Your task to perform on an android device: allow cookies in the chrome app Image 0: 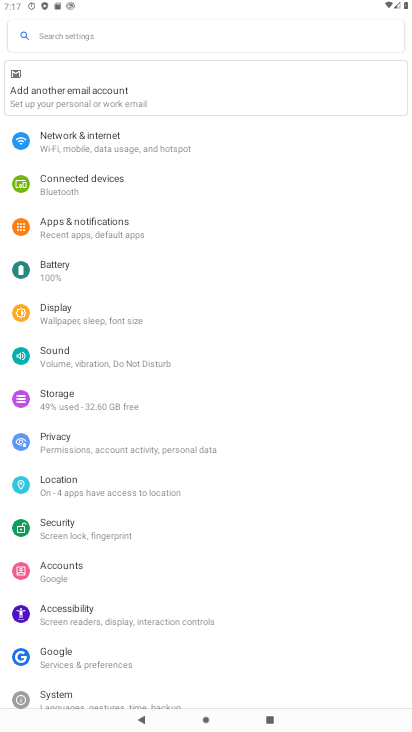
Step 0: press home button
Your task to perform on an android device: allow cookies in the chrome app Image 1: 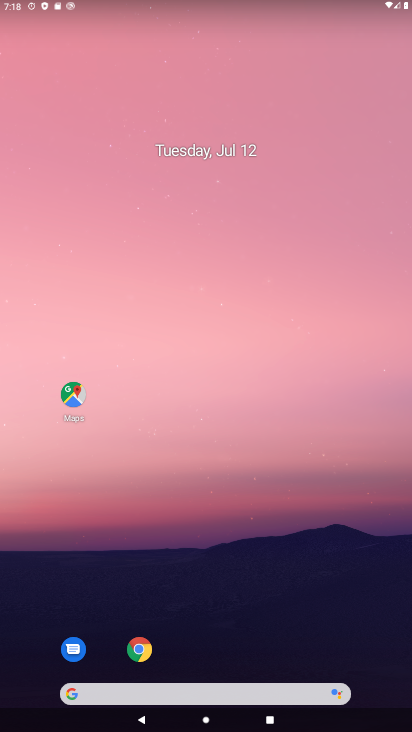
Step 1: click (142, 649)
Your task to perform on an android device: allow cookies in the chrome app Image 2: 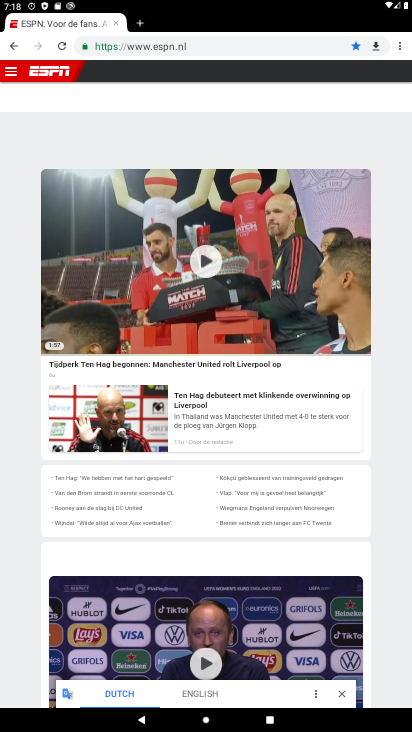
Step 2: click (401, 46)
Your task to perform on an android device: allow cookies in the chrome app Image 3: 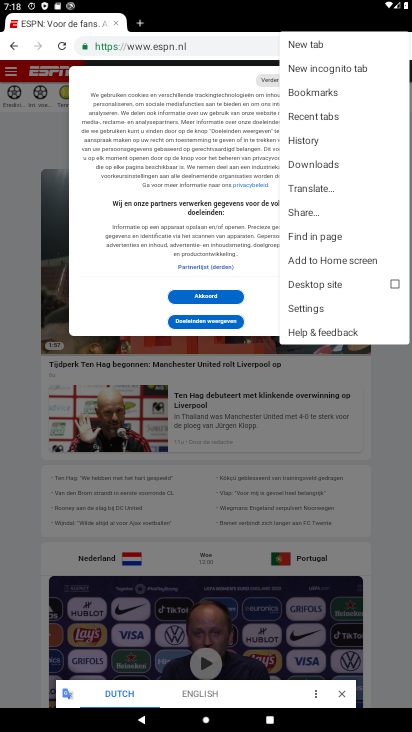
Step 3: click (312, 311)
Your task to perform on an android device: allow cookies in the chrome app Image 4: 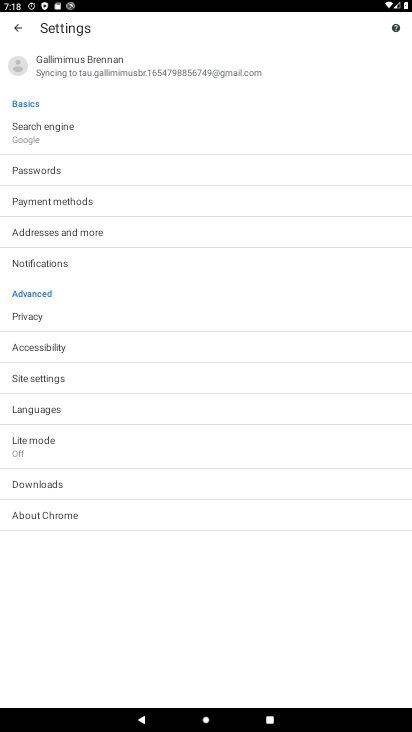
Step 4: click (39, 377)
Your task to perform on an android device: allow cookies in the chrome app Image 5: 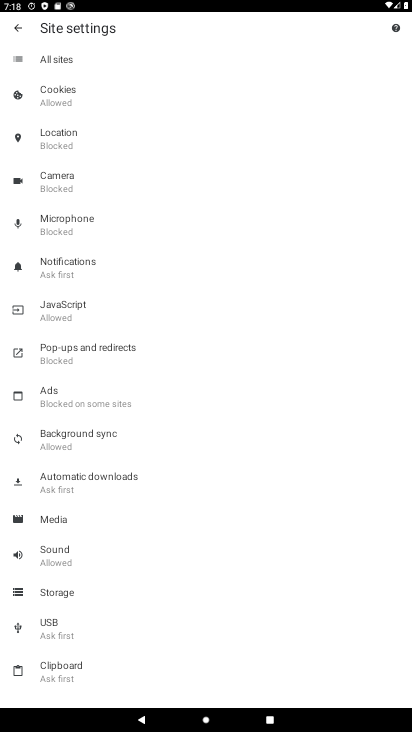
Step 5: click (74, 96)
Your task to perform on an android device: allow cookies in the chrome app Image 6: 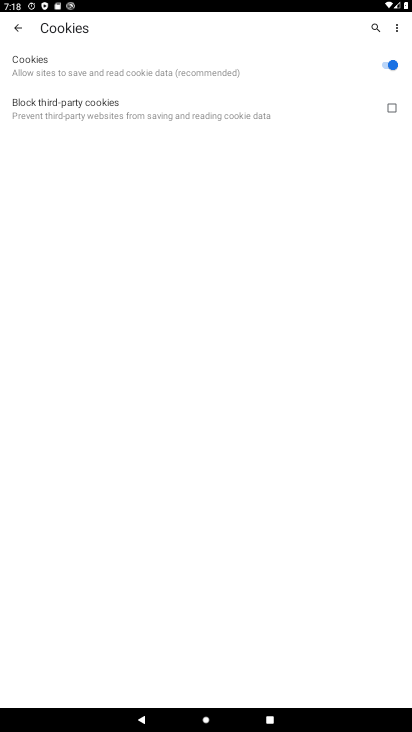
Step 6: click (391, 111)
Your task to perform on an android device: allow cookies in the chrome app Image 7: 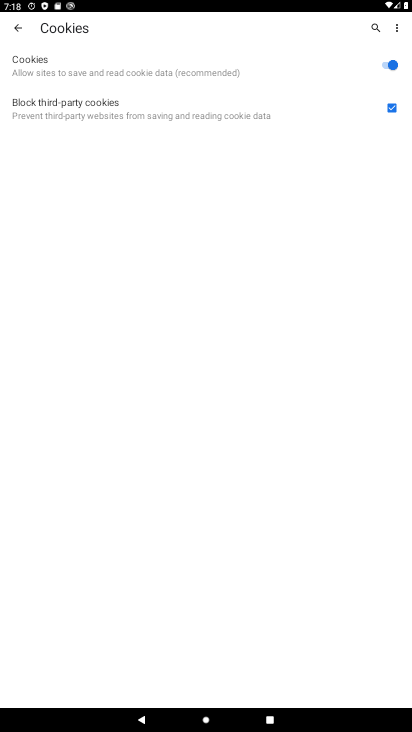
Step 7: task complete